Your task to perform on an android device: Go to wifi settings Image 0: 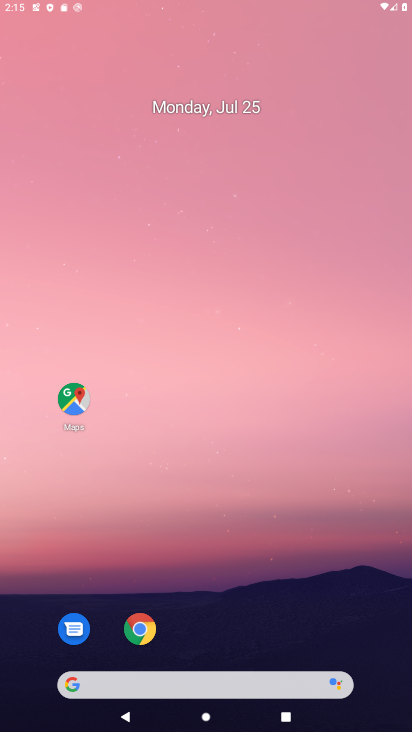
Step 0: drag from (191, 646) to (196, 144)
Your task to perform on an android device: Go to wifi settings Image 1: 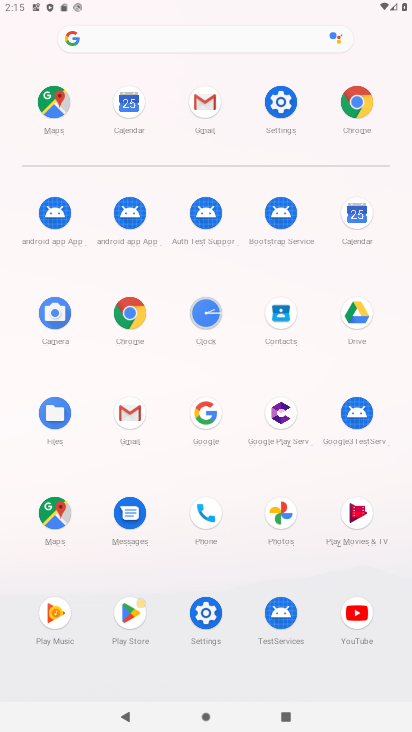
Step 1: drag from (239, 558) to (243, 296)
Your task to perform on an android device: Go to wifi settings Image 2: 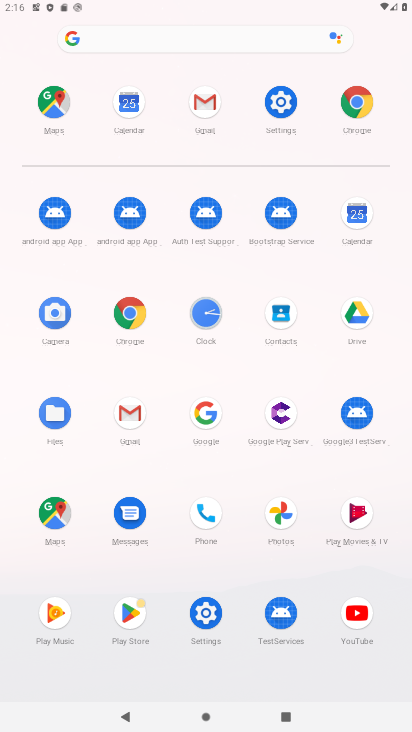
Step 2: click (196, 606)
Your task to perform on an android device: Go to wifi settings Image 3: 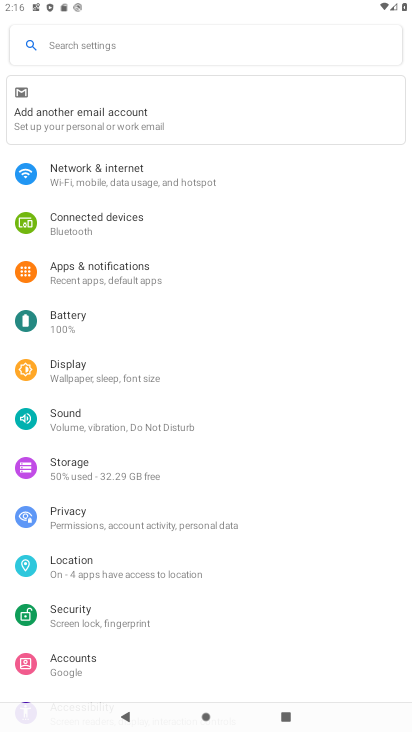
Step 3: click (138, 172)
Your task to perform on an android device: Go to wifi settings Image 4: 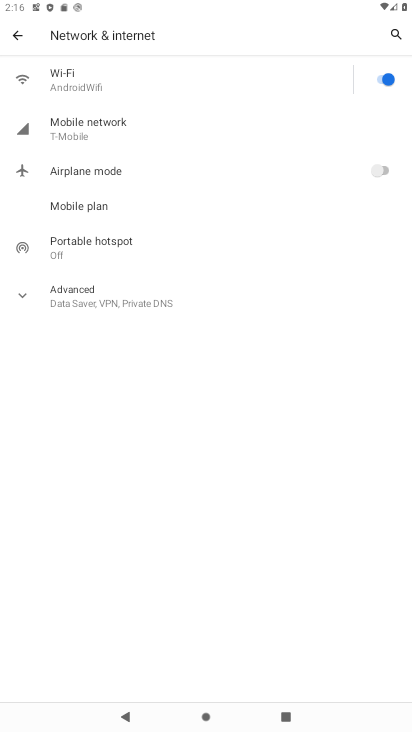
Step 4: click (129, 83)
Your task to perform on an android device: Go to wifi settings Image 5: 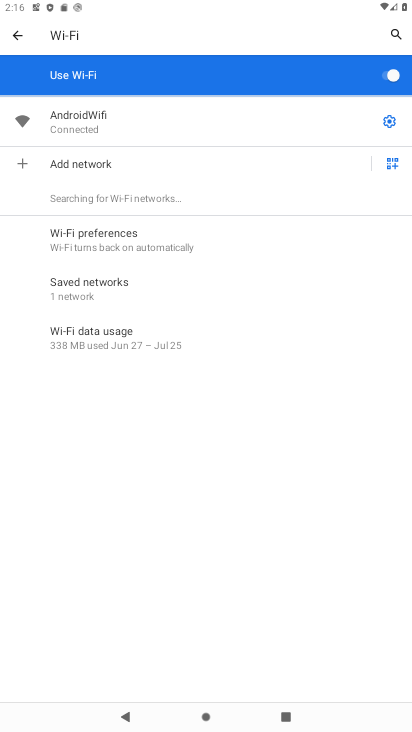
Step 5: click (382, 124)
Your task to perform on an android device: Go to wifi settings Image 6: 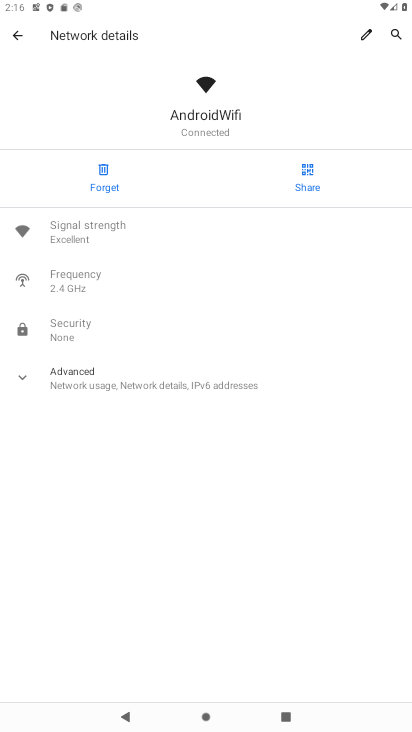
Step 6: task complete